Your task to perform on an android device: move an email to a new category in the gmail app Image 0: 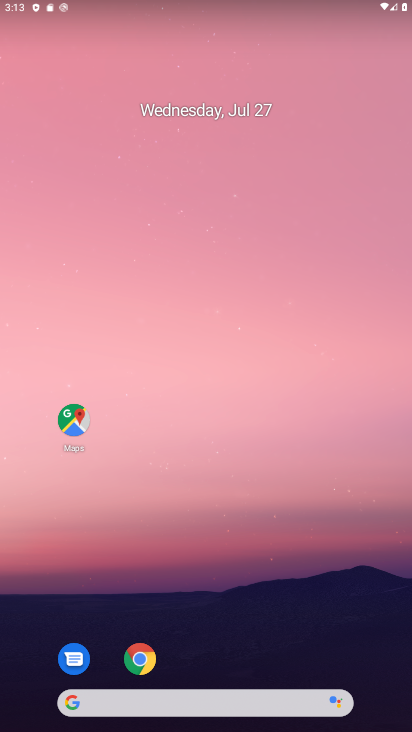
Step 0: drag from (248, 650) to (205, 39)
Your task to perform on an android device: move an email to a new category in the gmail app Image 1: 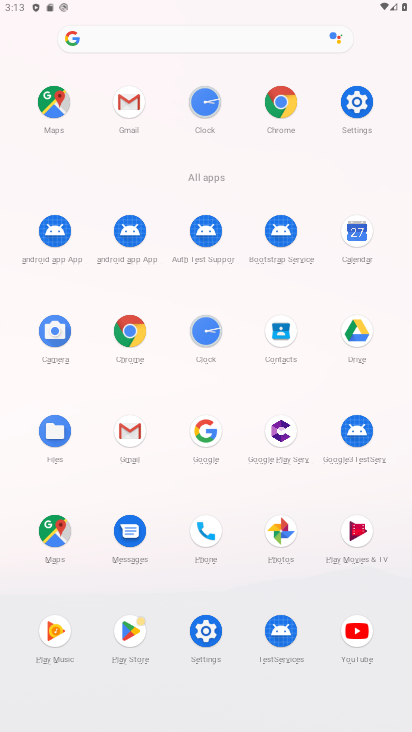
Step 1: click (135, 429)
Your task to perform on an android device: move an email to a new category in the gmail app Image 2: 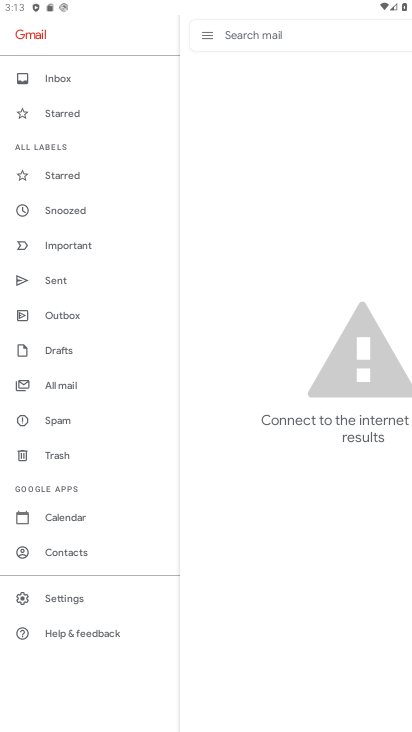
Step 2: click (48, 88)
Your task to perform on an android device: move an email to a new category in the gmail app Image 3: 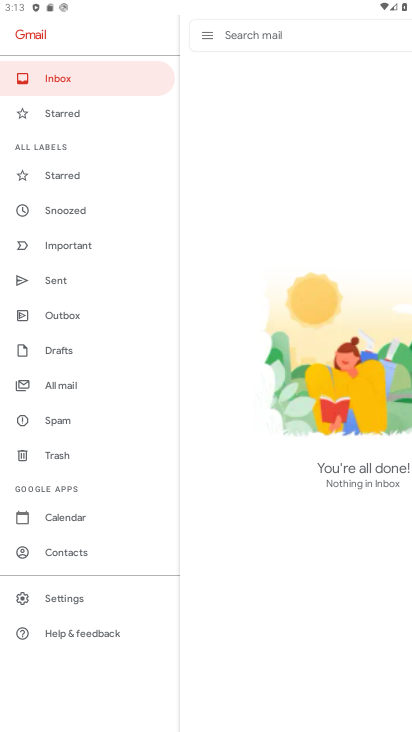
Step 3: click (63, 381)
Your task to perform on an android device: move an email to a new category in the gmail app Image 4: 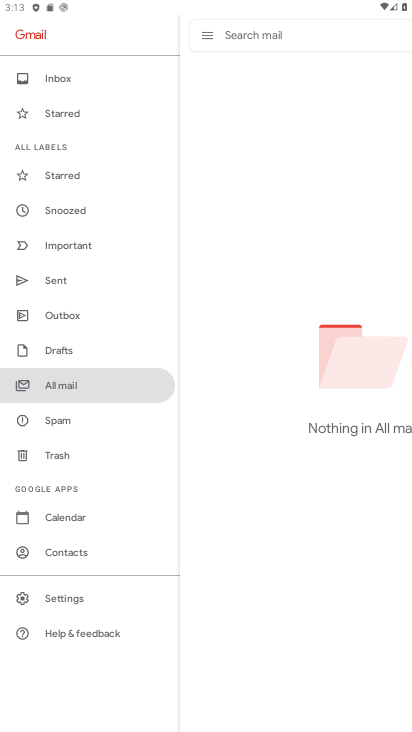
Step 4: task complete